Your task to perform on an android device: open wifi settings Image 0: 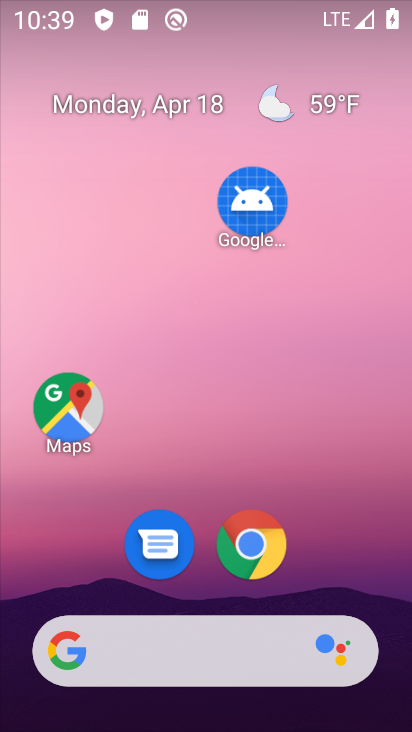
Step 0: drag from (278, 542) to (270, 192)
Your task to perform on an android device: open wifi settings Image 1: 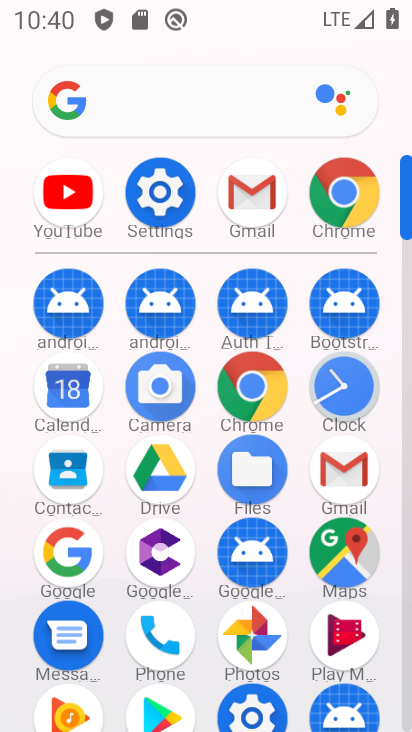
Step 1: click (237, 701)
Your task to perform on an android device: open wifi settings Image 2: 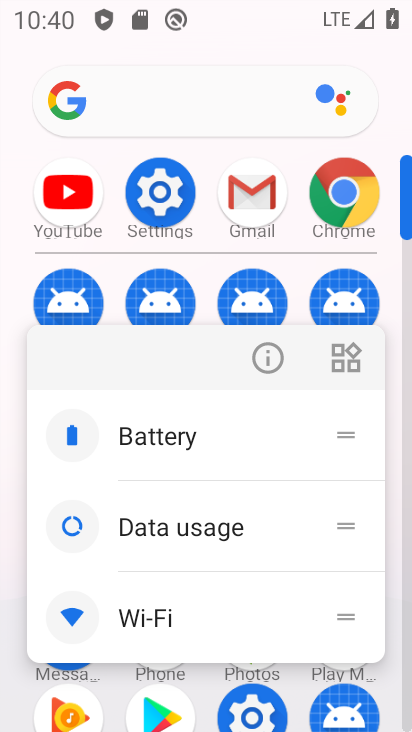
Step 2: click (252, 711)
Your task to perform on an android device: open wifi settings Image 3: 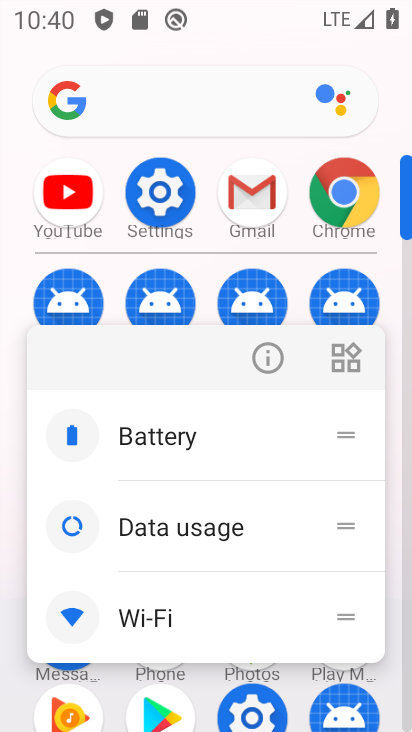
Step 3: click (252, 712)
Your task to perform on an android device: open wifi settings Image 4: 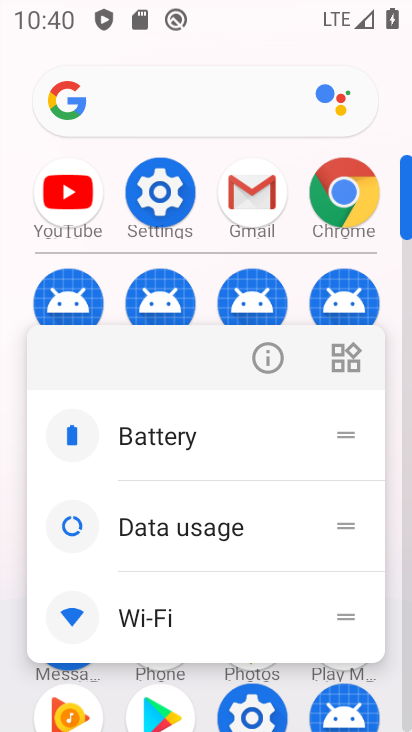
Step 4: click (252, 712)
Your task to perform on an android device: open wifi settings Image 5: 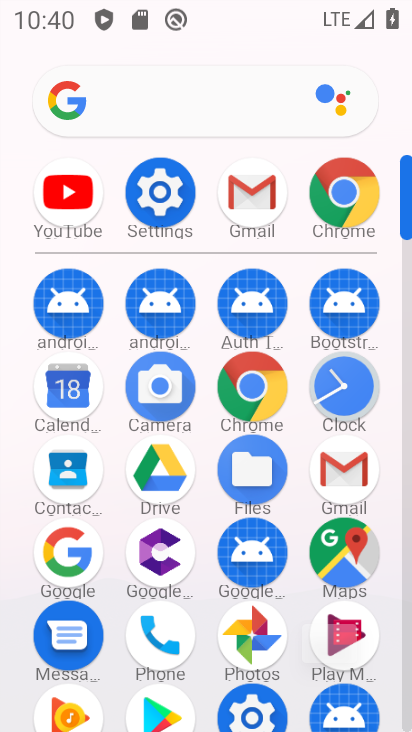
Step 5: drag from (253, 711) to (240, 378)
Your task to perform on an android device: open wifi settings Image 6: 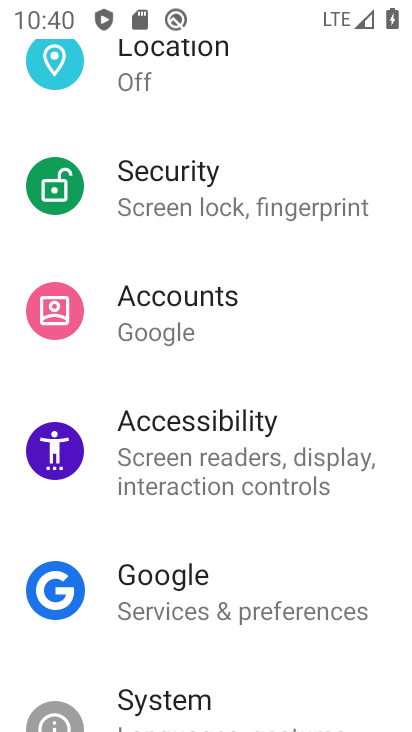
Step 6: drag from (240, 414) to (231, 709)
Your task to perform on an android device: open wifi settings Image 7: 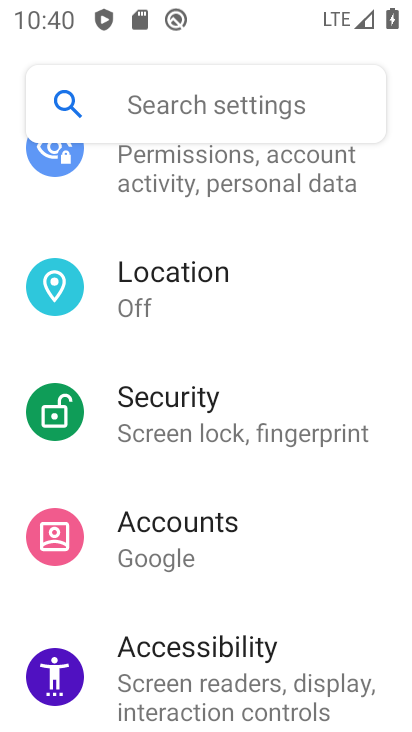
Step 7: drag from (215, 178) to (205, 690)
Your task to perform on an android device: open wifi settings Image 8: 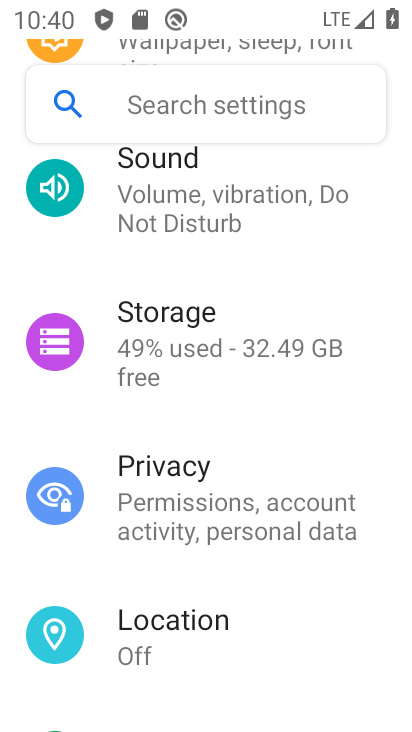
Step 8: drag from (226, 121) to (202, 638)
Your task to perform on an android device: open wifi settings Image 9: 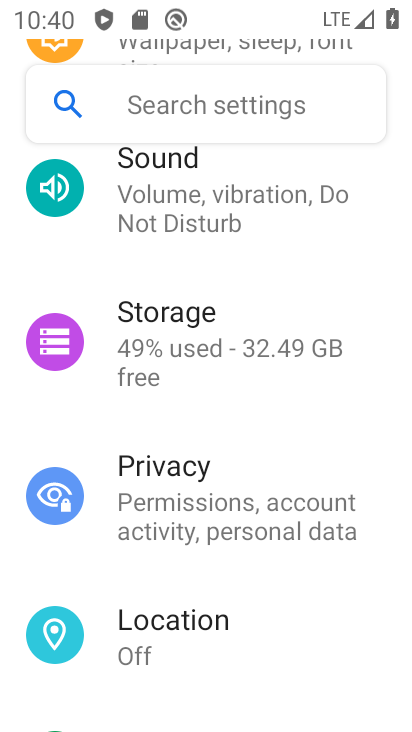
Step 9: drag from (221, 198) to (181, 670)
Your task to perform on an android device: open wifi settings Image 10: 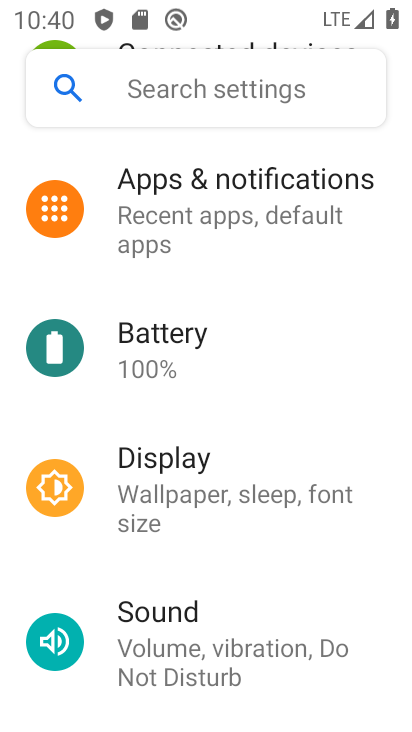
Step 10: drag from (271, 175) to (254, 659)
Your task to perform on an android device: open wifi settings Image 11: 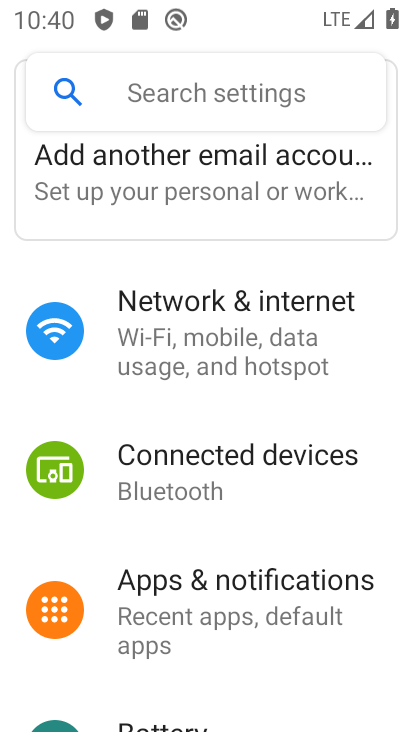
Step 11: click (246, 334)
Your task to perform on an android device: open wifi settings Image 12: 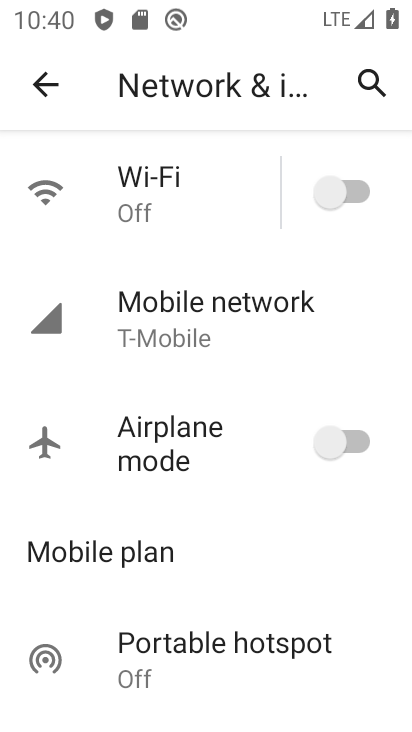
Step 12: click (198, 203)
Your task to perform on an android device: open wifi settings Image 13: 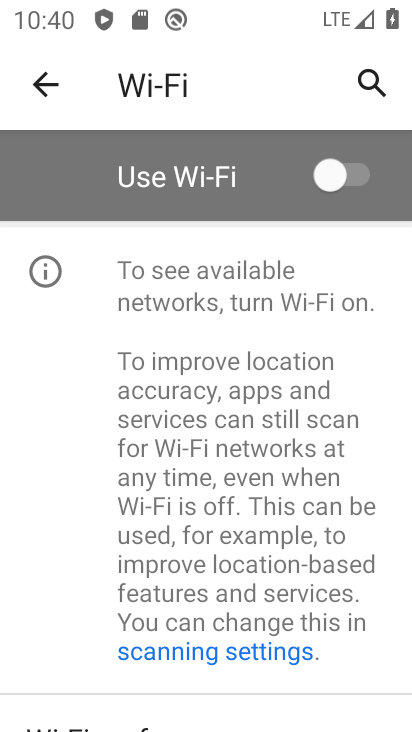
Step 13: task complete